Your task to perform on an android device: What is the news today? Image 0: 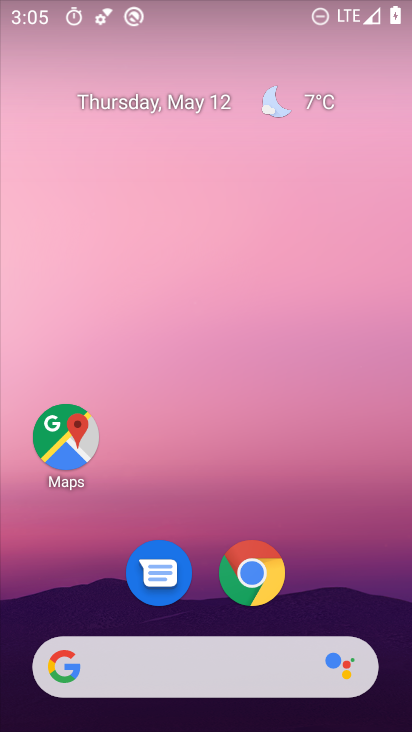
Step 0: drag from (380, 623) to (19, 141)
Your task to perform on an android device: What is the news today? Image 1: 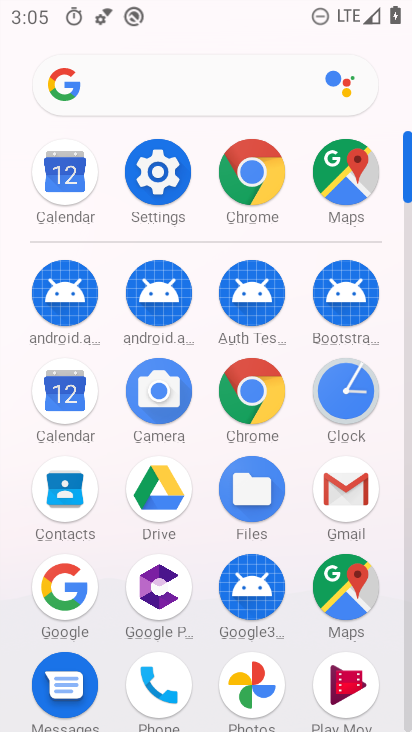
Step 1: task complete